Your task to perform on an android device: Open the Play Movies app and select the watchlist tab. Image 0: 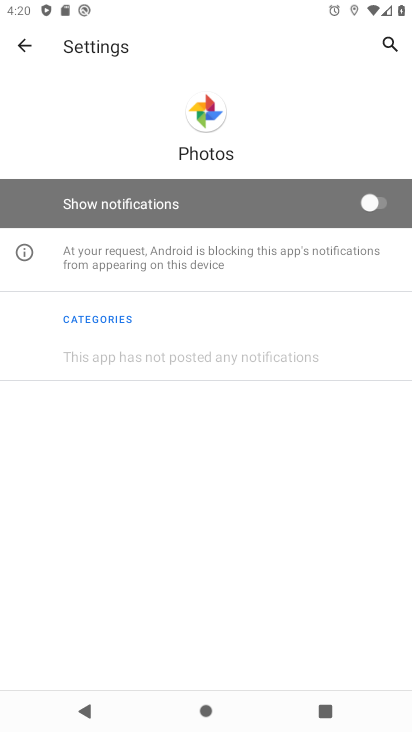
Step 0: press home button
Your task to perform on an android device: Open the Play Movies app and select the watchlist tab. Image 1: 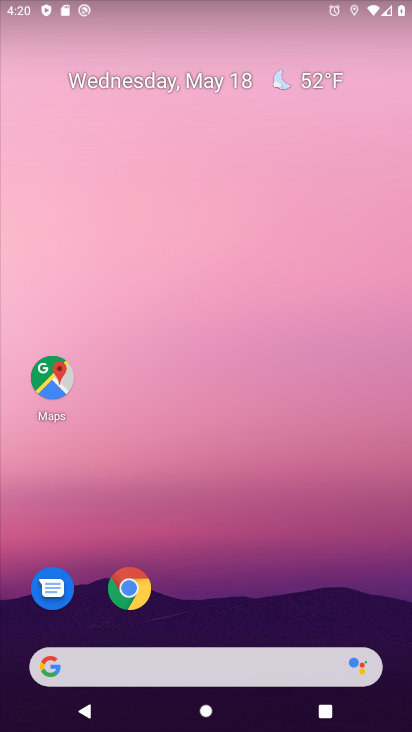
Step 1: drag from (270, 599) to (263, 141)
Your task to perform on an android device: Open the Play Movies app and select the watchlist tab. Image 2: 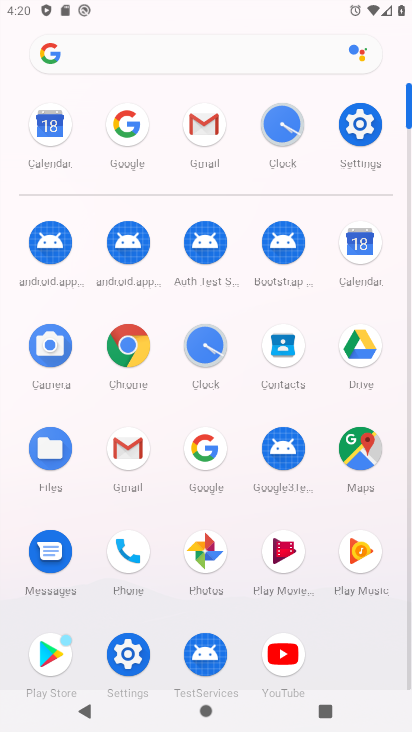
Step 2: click (288, 564)
Your task to perform on an android device: Open the Play Movies app and select the watchlist tab. Image 3: 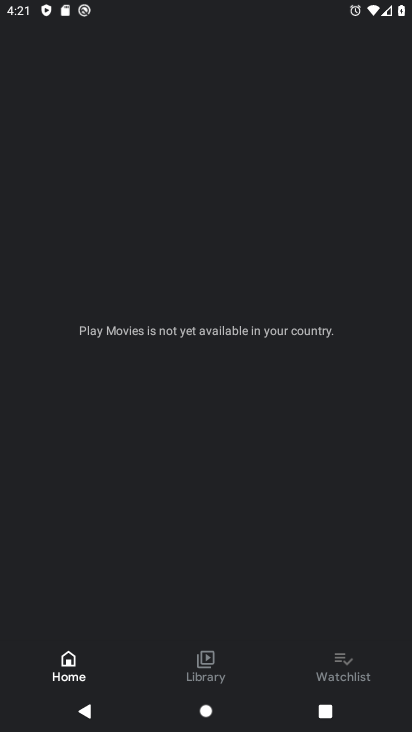
Step 3: click (342, 670)
Your task to perform on an android device: Open the Play Movies app and select the watchlist tab. Image 4: 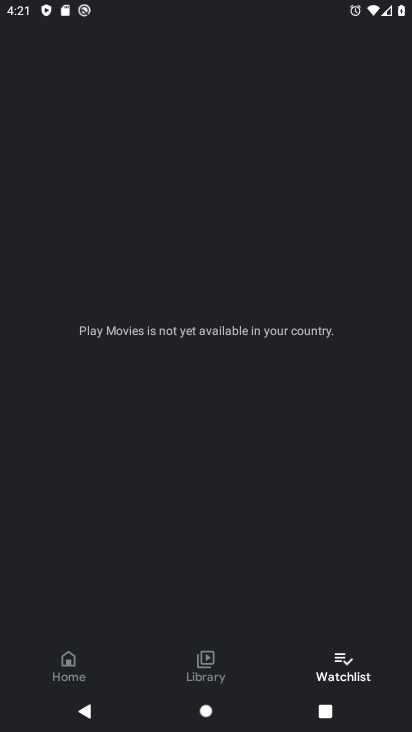
Step 4: task complete